Your task to perform on an android device: turn notification dots off Image 0: 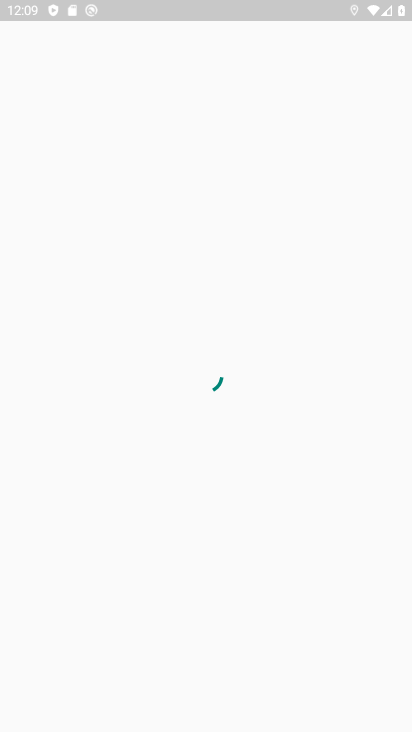
Step 0: press home button
Your task to perform on an android device: turn notification dots off Image 1: 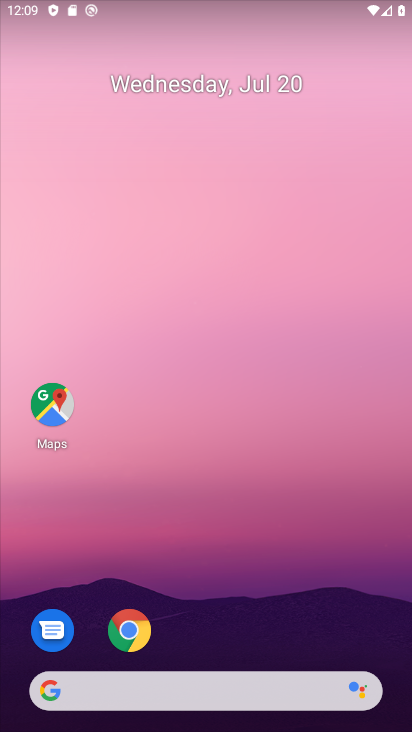
Step 1: drag from (270, 562) to (219, 181)
Your task to perform on an android device: turn notification dots off Image 2: 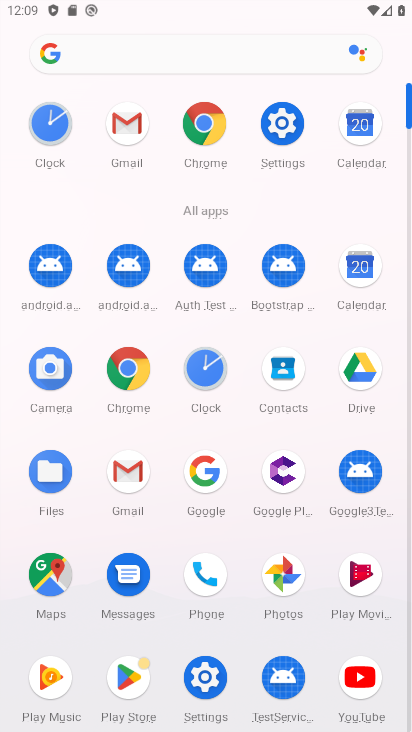
Step 2: click (272, 128)
Your task to perform on an android device: turn notification dots off Image 3: 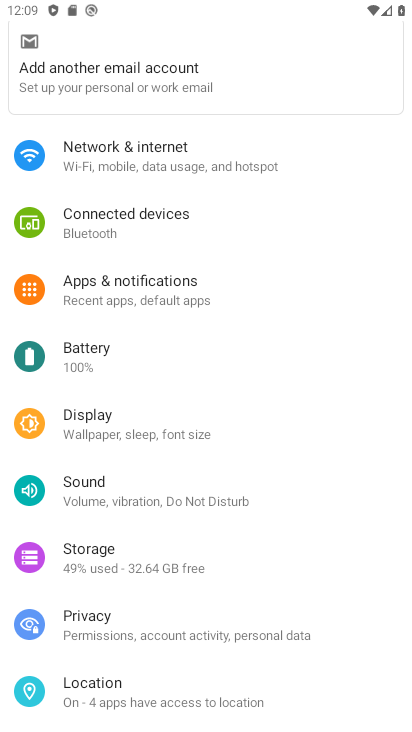
Step 3: click (159, 277)
Your task to perform on an android device: turn notification dots off Image 4: 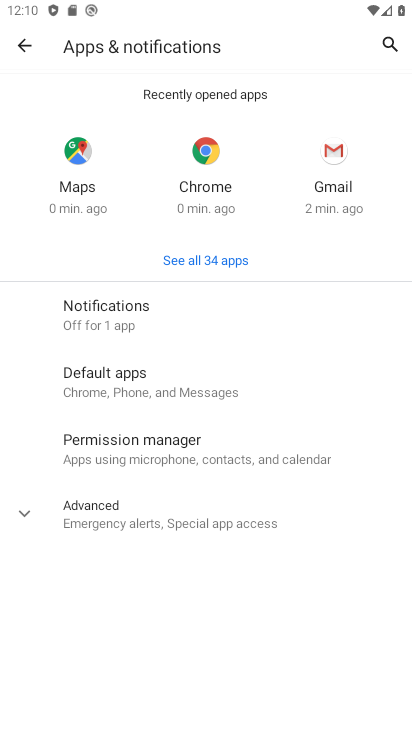
Step 4: click (129, 306)
Your task to perform on an android device: turn notification dots off Image 5: 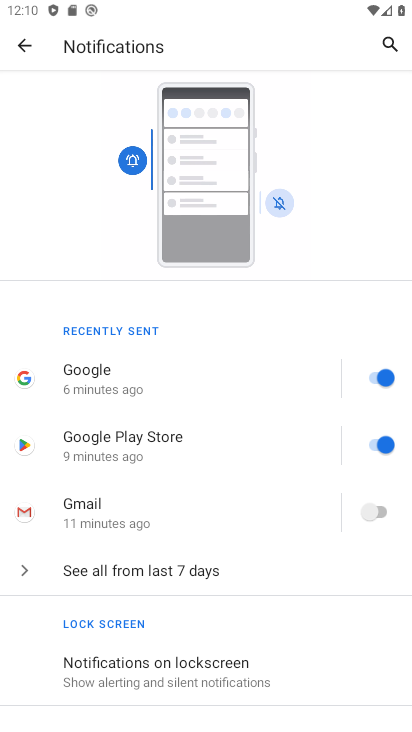
Step 5: drag from (308, 644) to (269, 349)
Your task to perform on an android device: turn notification dots off Image 6: 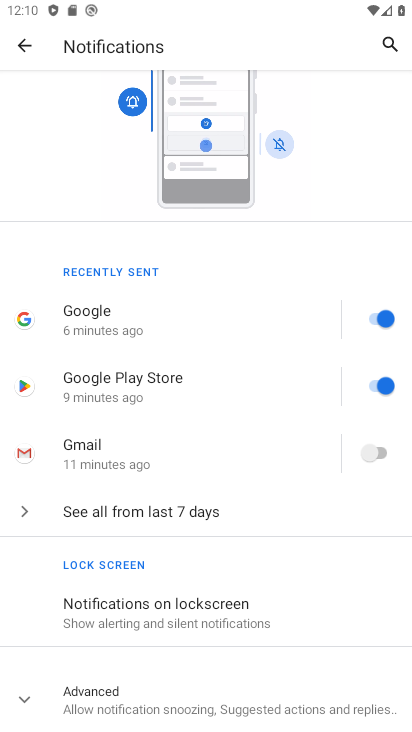
Step 6: click (31, 704)
Your task to perform on an android device: turn notification dots off Image 7: 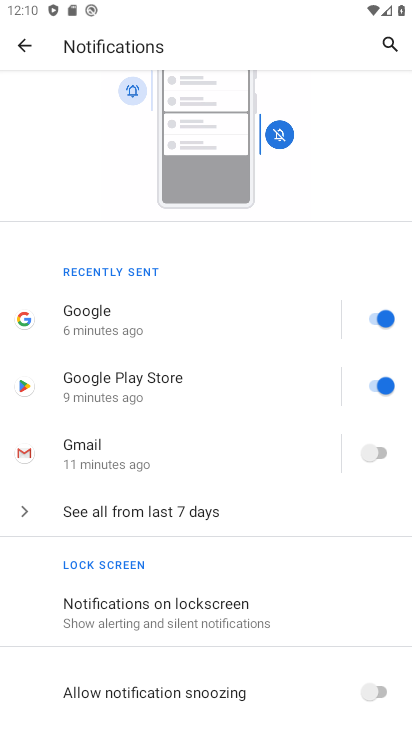
Step 7: drag from (314, 665) to (269, 296)
Your task to perform on an android device: turn notification dots off Image 8: 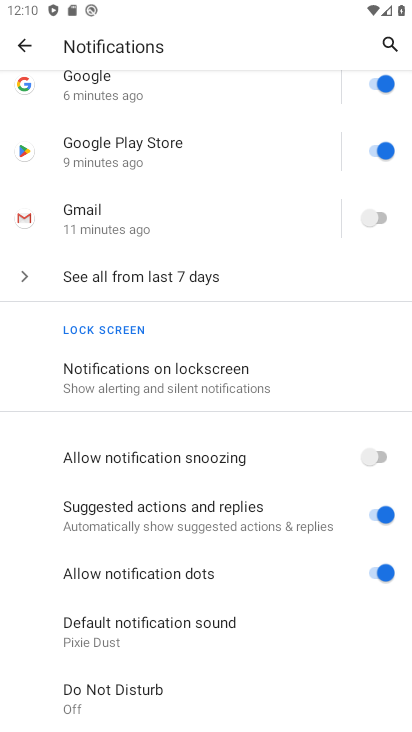
Step 8: click (380, 577)
Your task to perform on an android device: turn notification dots off Image 9: 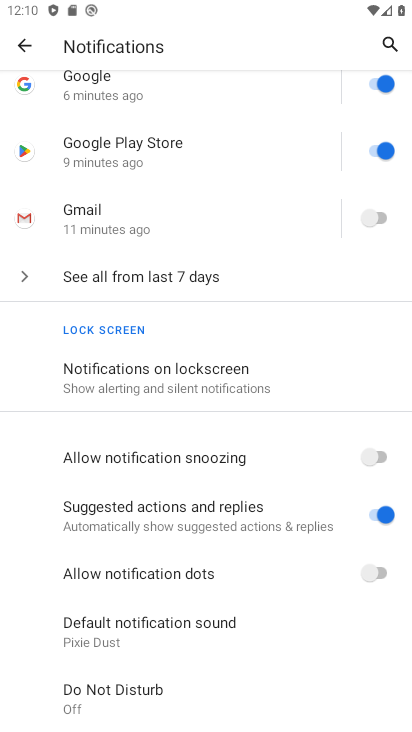
Step 9: task complete